Your task to perform on an android device: Clear the shopping cart on ebay. Search for macbook air on ebay, select the first entry, and add it to the cart. Image 0: 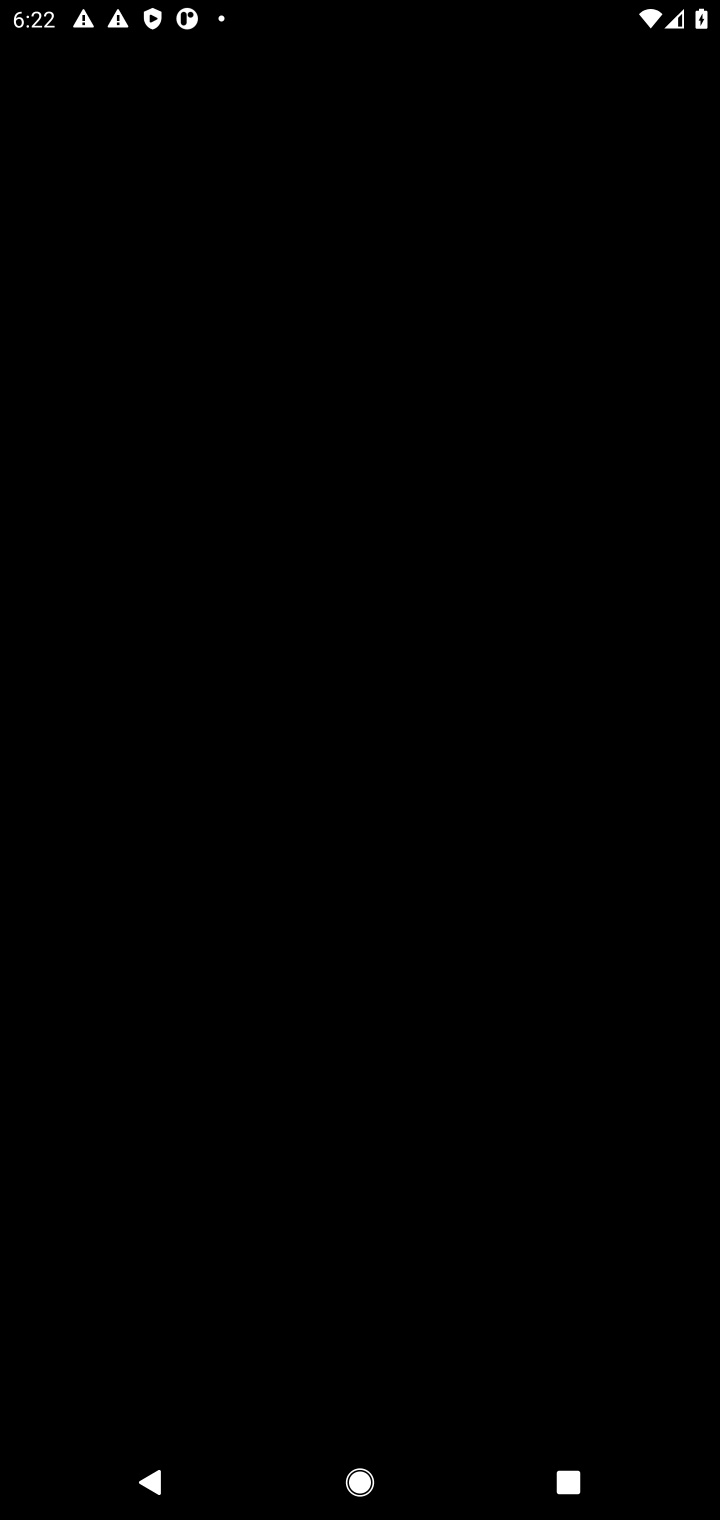
Step 0: press home button
Your task to perform on an android device: Clear the shopping cart on ebay. Search for macbook air on ebay, select the first entry, and add it to the cart. Image 1: 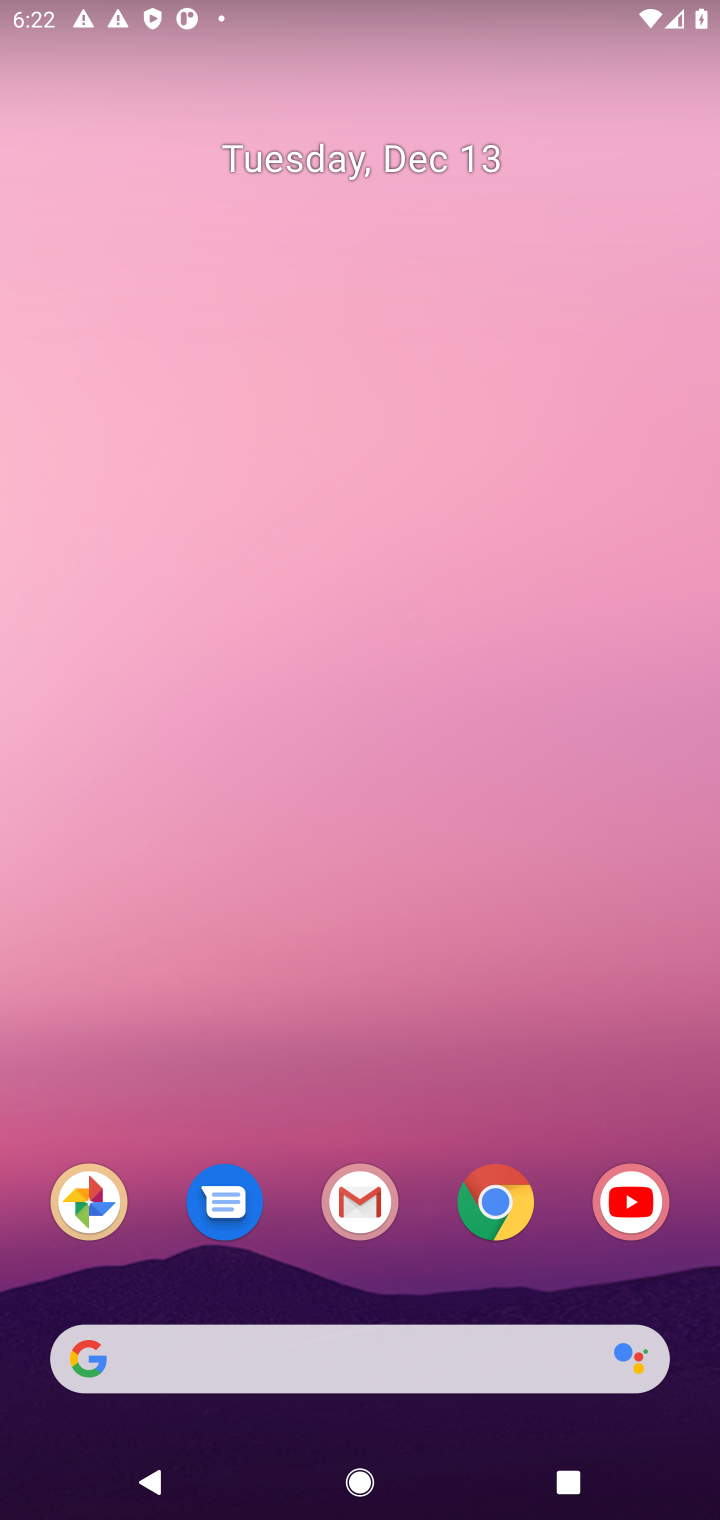
Step 1: click (502, 1213)
Your task to perform on an android device: Clear the shopping cart on ebay. Search for macbook air on ebay, select the first entry, and add it to the cart. Image 2: 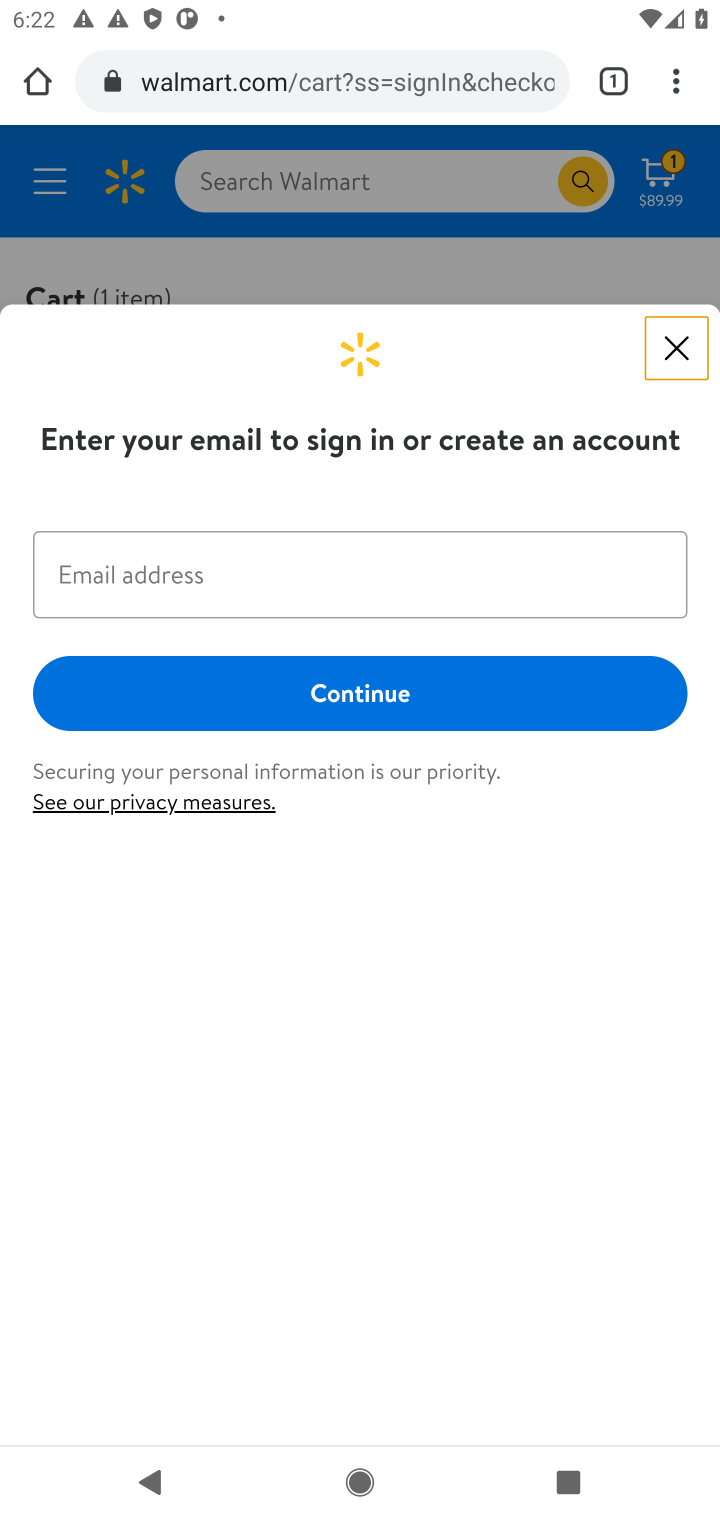
Step 2: click (262, 92)
Your task to perform on an android device: Clear the shopping cart on ebay. Search for macbook air on ebay, select the first entry, and add it to the cart. Image 3: 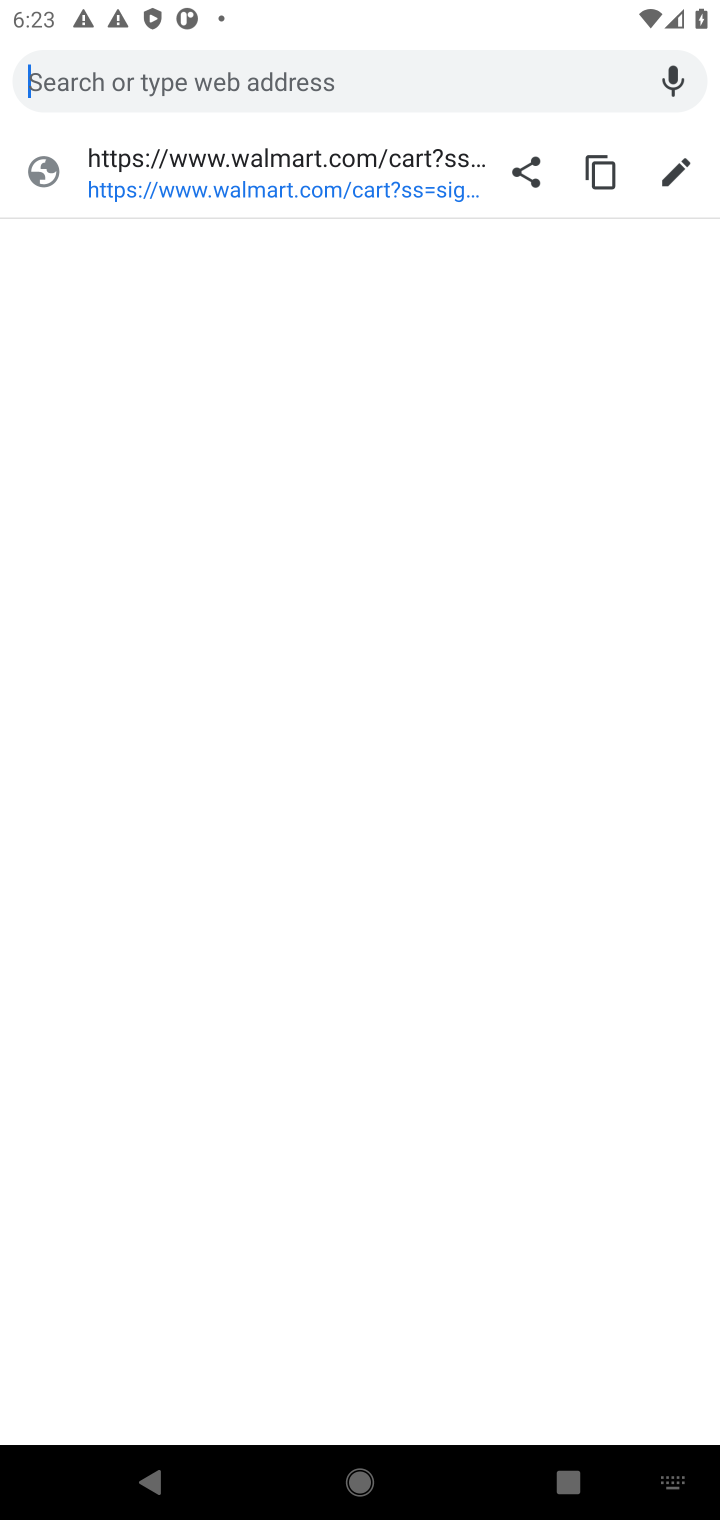
Step 3: type "ebay.com"
Your task to perform on an android device: Clear the shopping cart on ebay. Search for macbook air on ebay, select the first entry, and add it to the cart. Image 4: 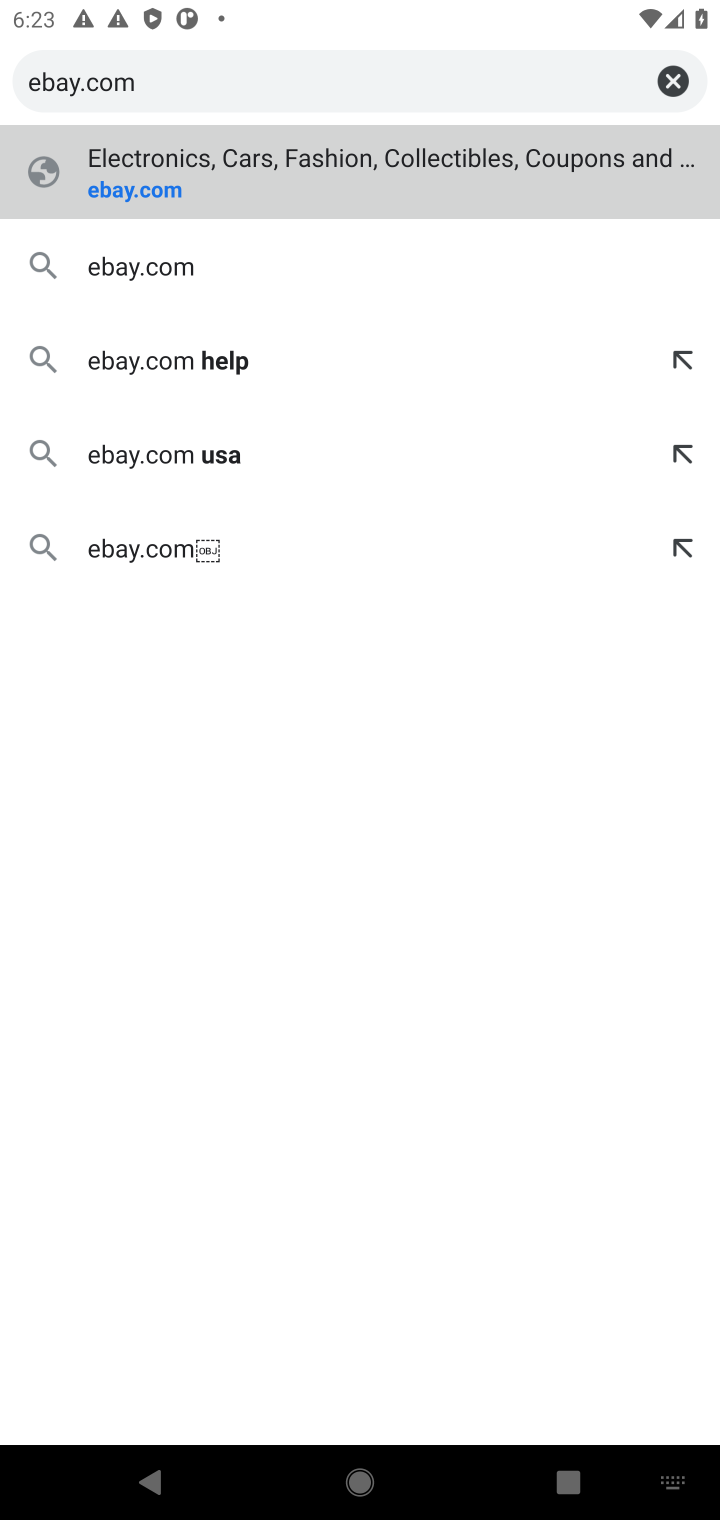
Step 4: click (134, 195)
Your task to perform on an android device: Clear the shopping cart on ebay. Search for macbook air on ebay, select the first entry, and add it to the cart. Image 5: 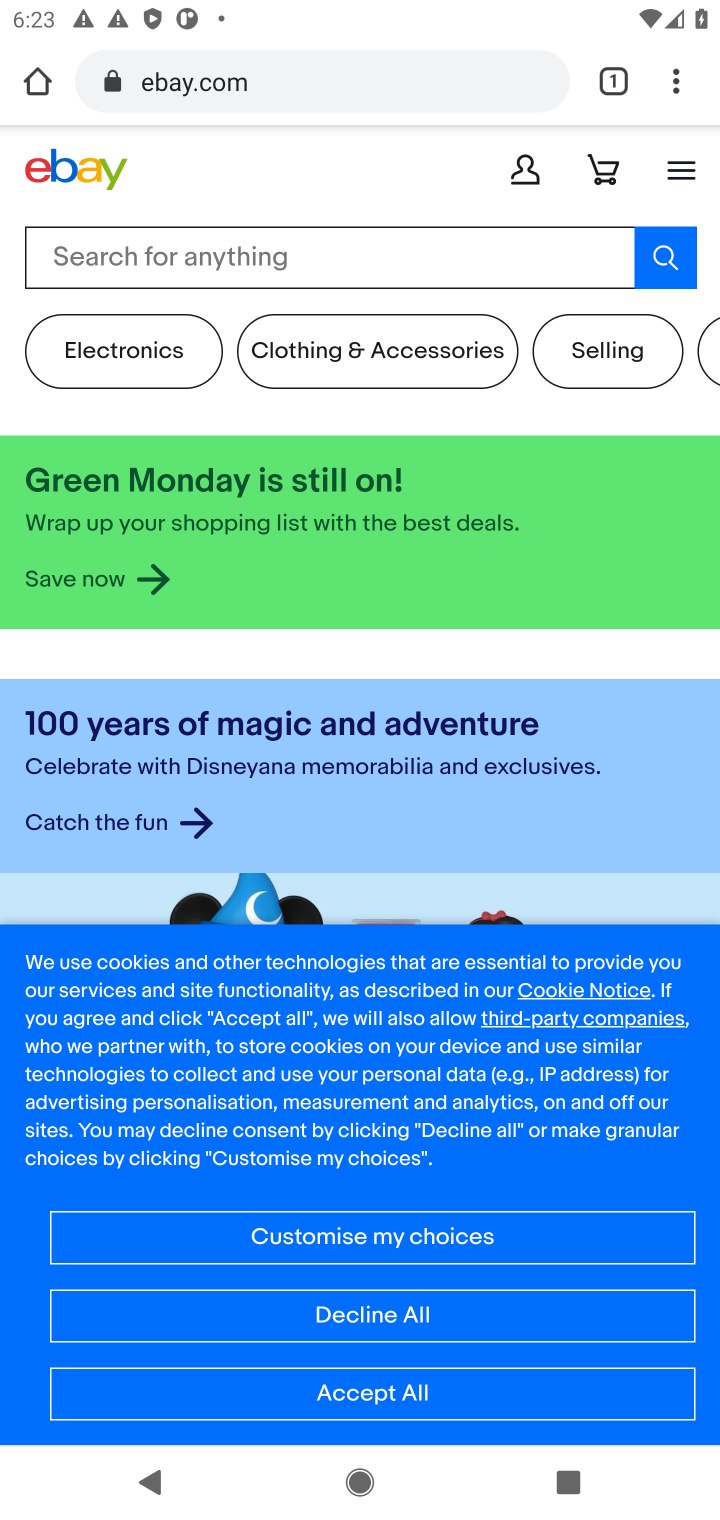
Step 5: click (598, 174)
Your task to perform on an android device: Clear the shopping cart on ebay. Search for macbook air on ebay, select the first entry, and add it to the cart. Image 6: 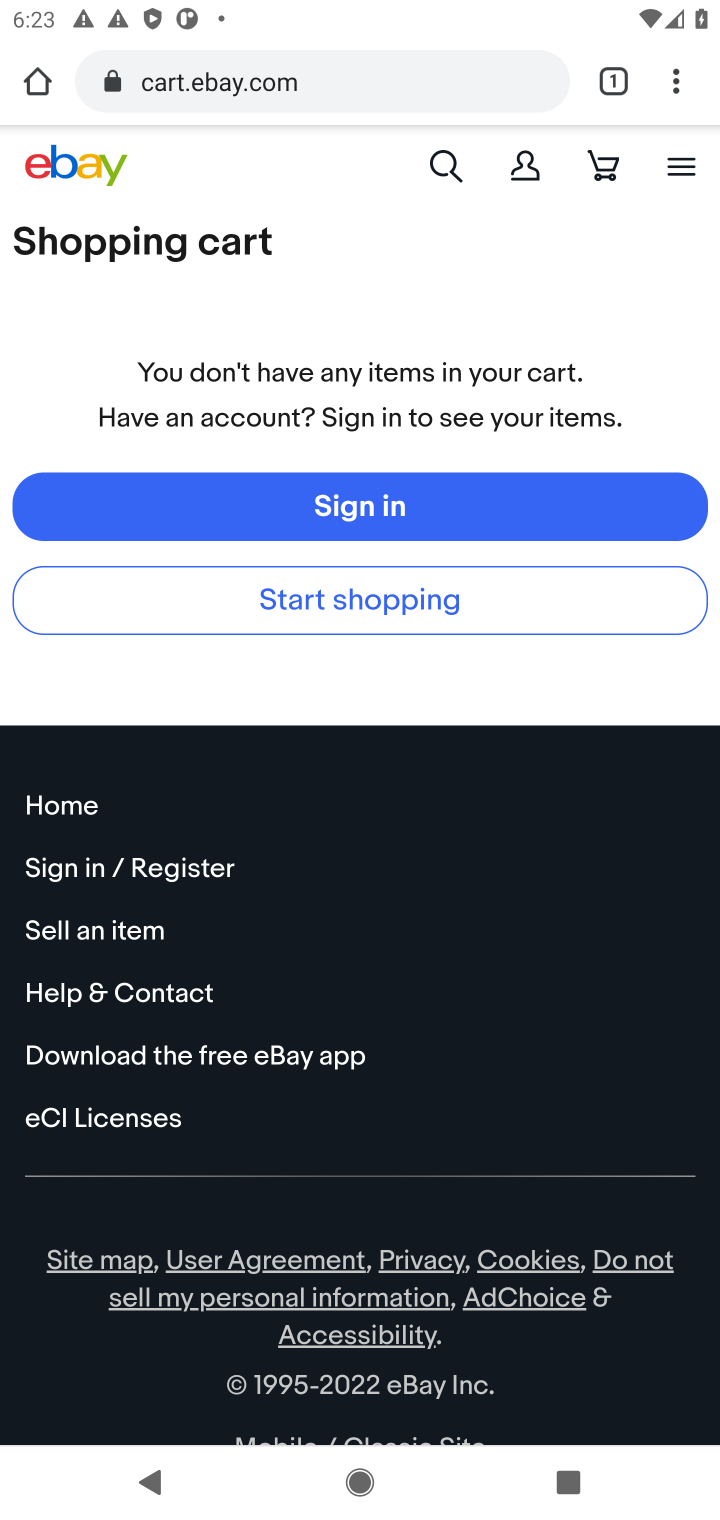
Step 6: click (451, 167)
Your task to perform on an android device: Clear the shopping cart on ebay. Search for macbook air on ebay, select the first entry, and add it to the cart. Image 7: 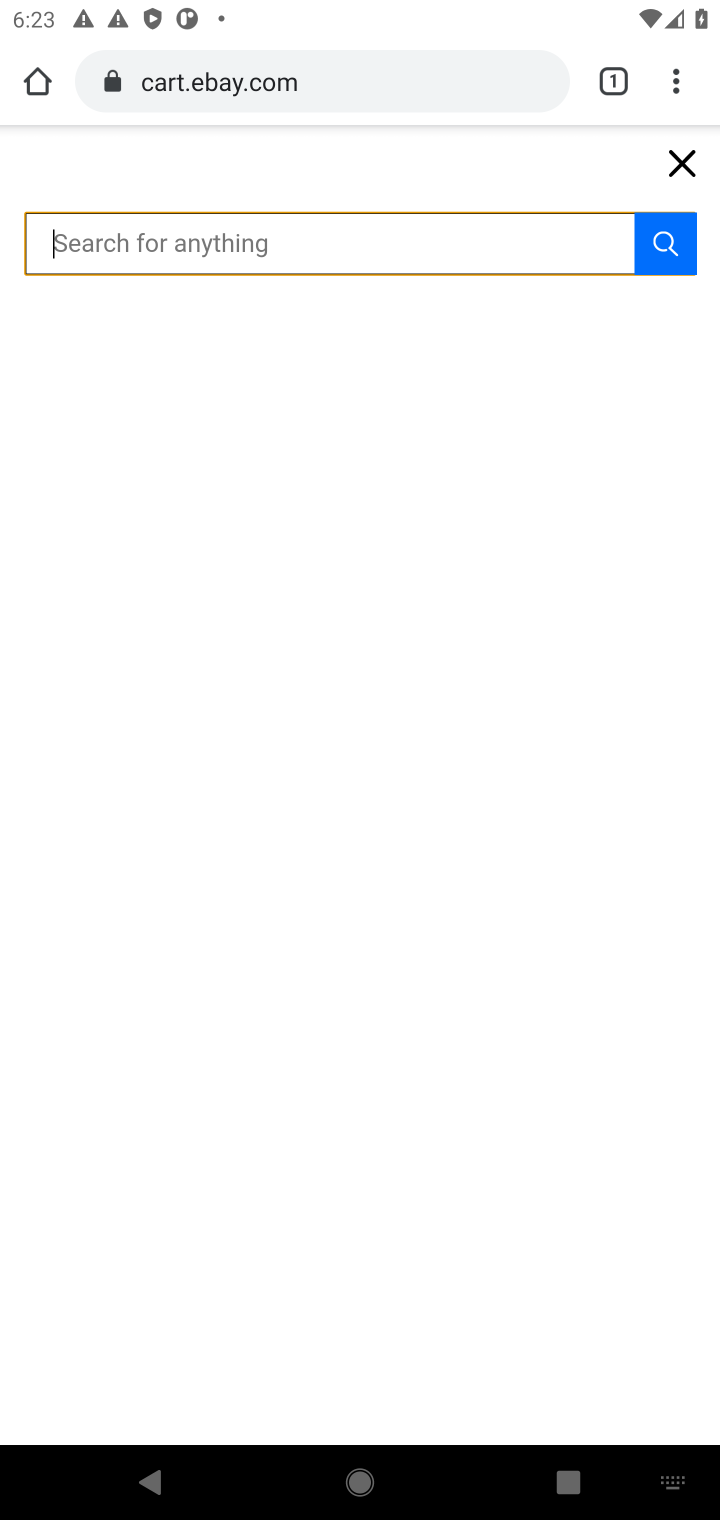
Step 7: type "macbook air"
Your task to perform on an android device: Clear the shopping cart on ebay. Search for macbook air on ebay, select the first entry, and add it to the cart. Image 8: 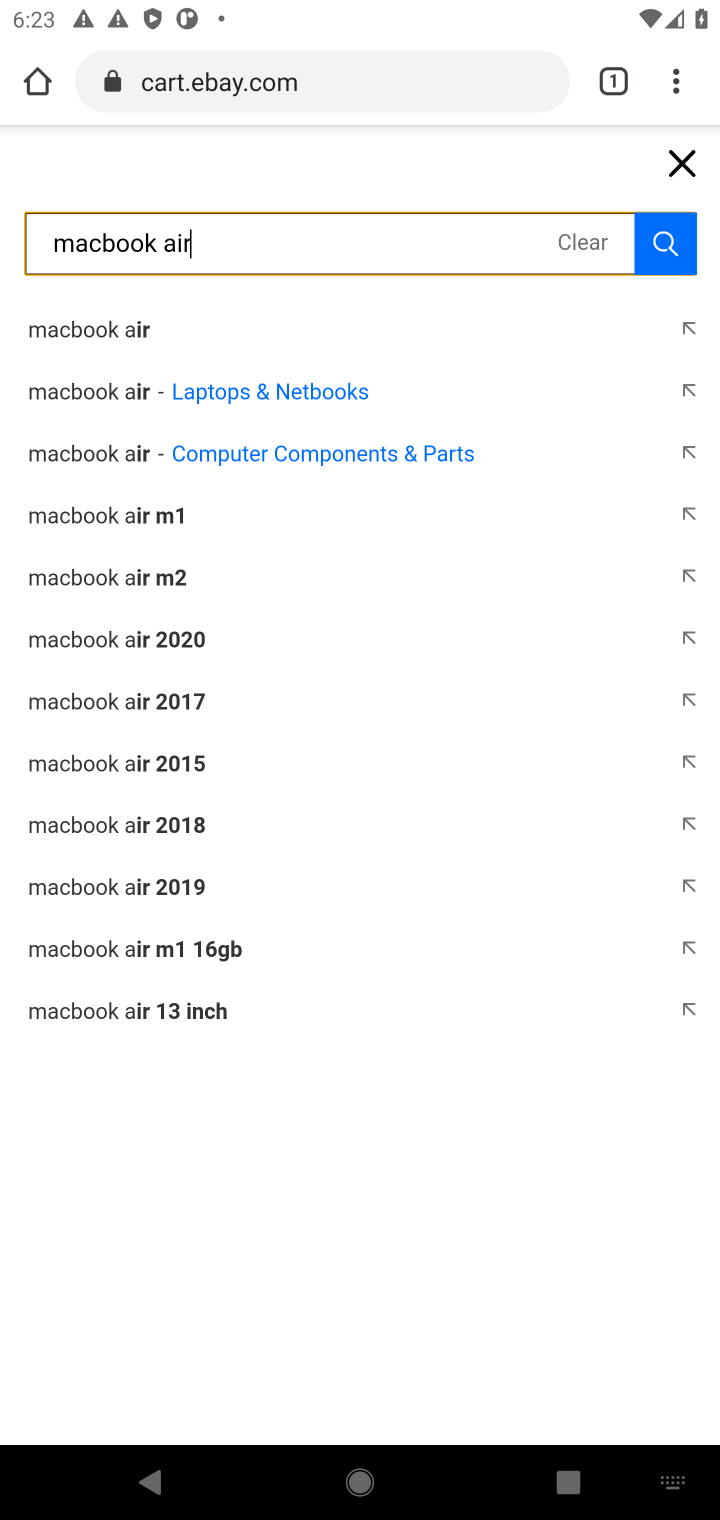
Step 8: click (47, 334)
Your task to perform on an android device: Clear the shopping cart on ebay. Search for macbook air on ebay, select the first entry, and add it to the cart. Image 9: 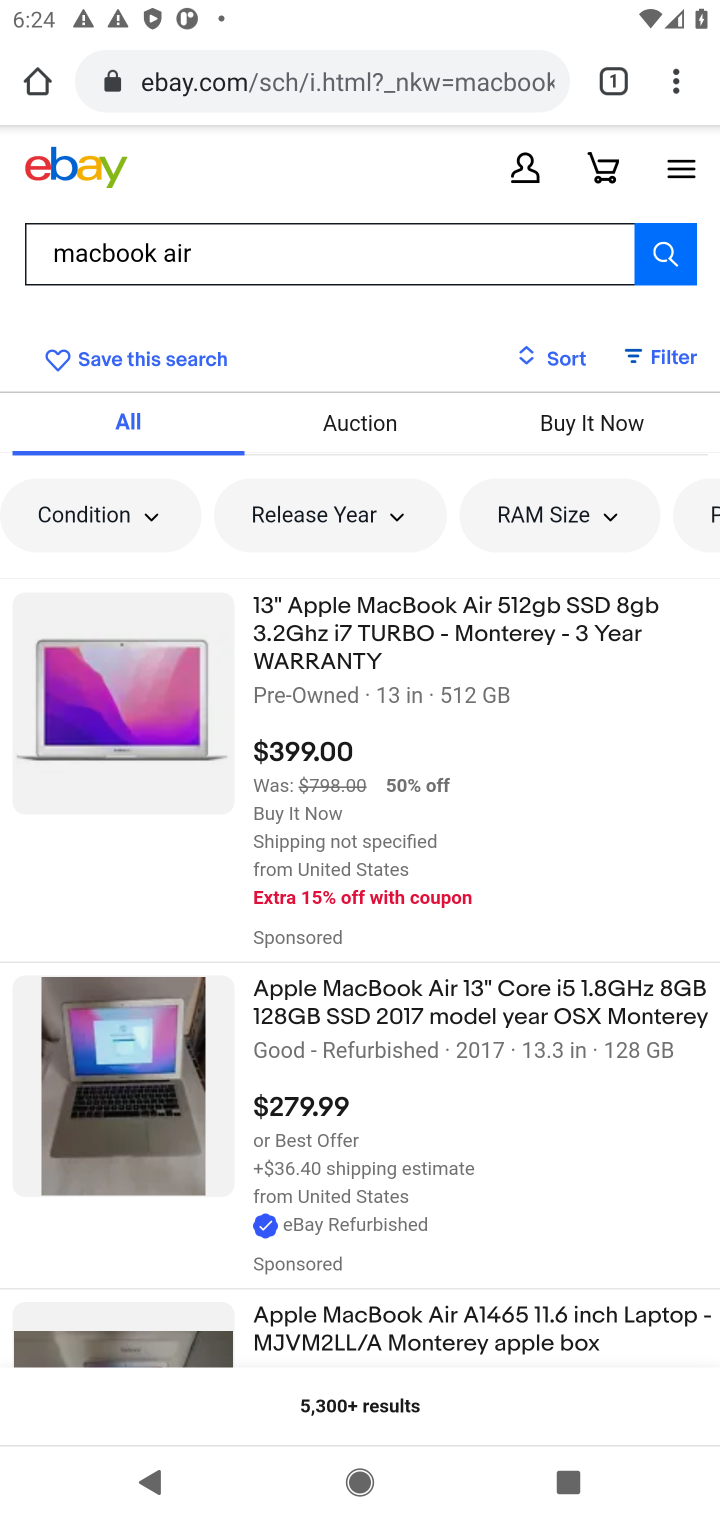
Step 9: click (369, 643)
Your task to perform on an android device: Clear the shopping cart on ebay. Search for macbook air on ebay, select the first entry, and add it to the cart. Image 10: 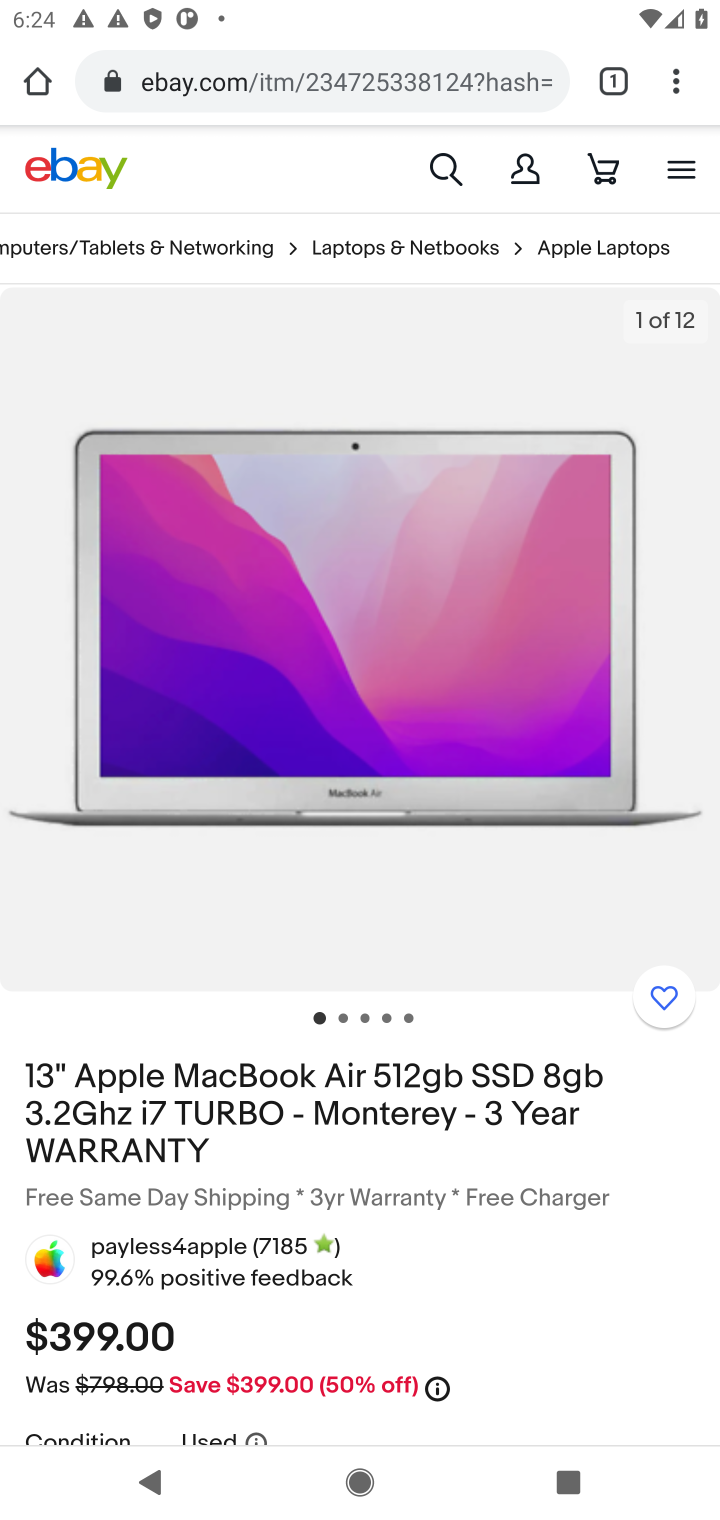
Step 10: drag from (526, 1151) to (522, 536)
Your task to perform on an android device: Clear the shopping cart on ebay. Search for macbook air on ebay, select the first entry, and add it to the cart. Image 11: 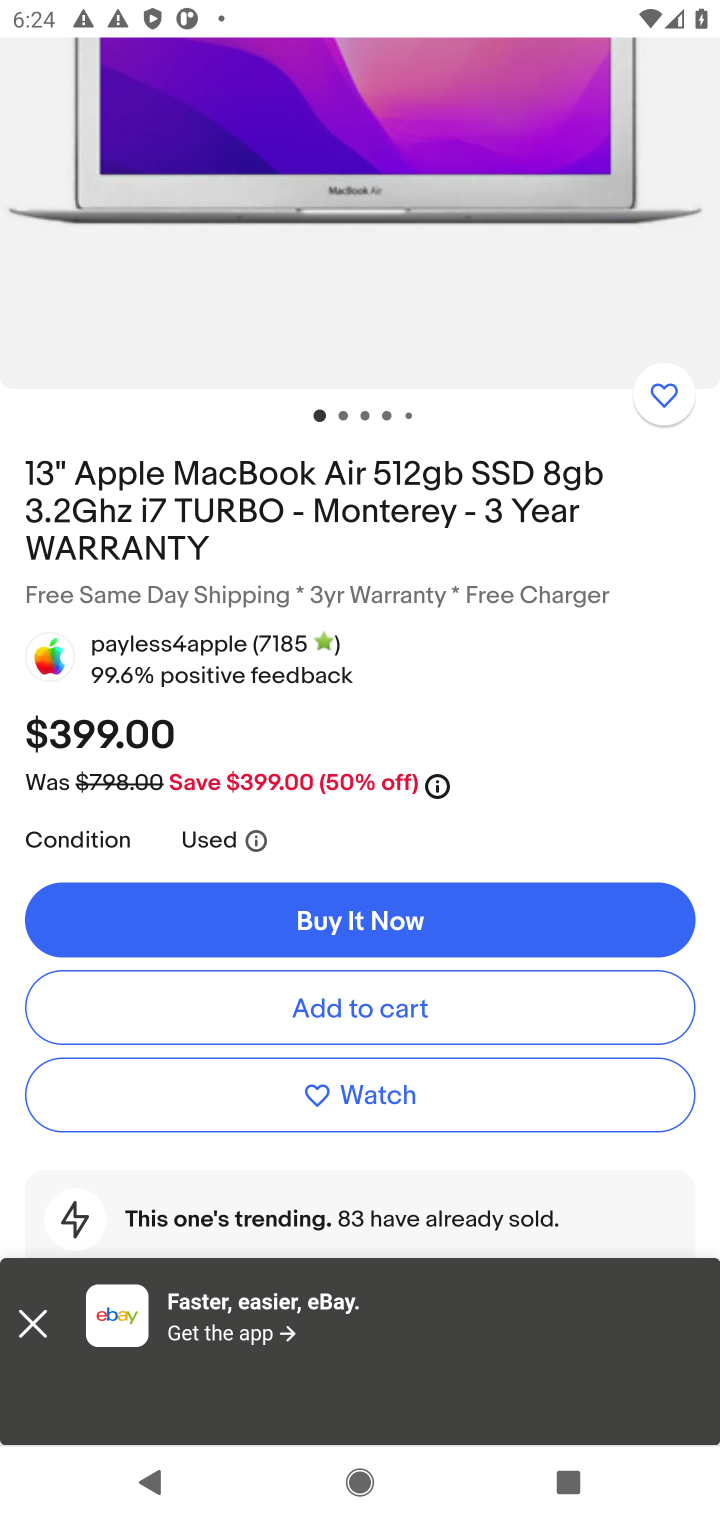
Step 11: click (328, 1010)
Your task to perform on an android device: Clear the shopping cart on ebay. Search for macbook air on ebay, select the first entry, and add it to the cart. Image 12: 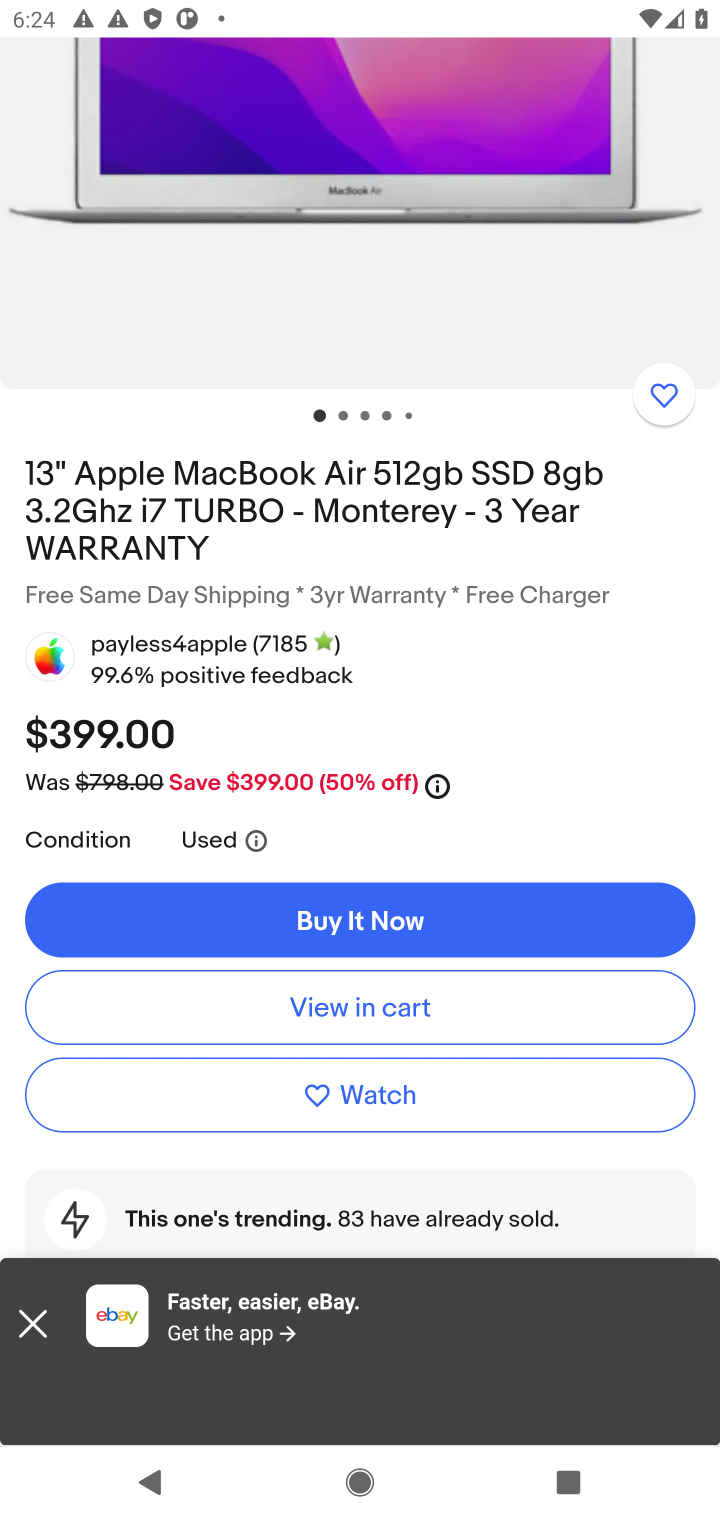
Step 12: task complete